Your task to perform on an android device: check google app version Image 0: 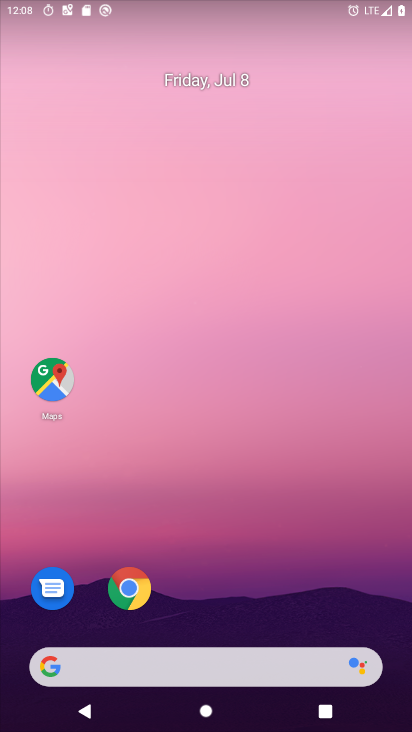
Step 0: drag from (151, 662) to (267, 74)
Your task to perform on an android device: check google app version Image 1: 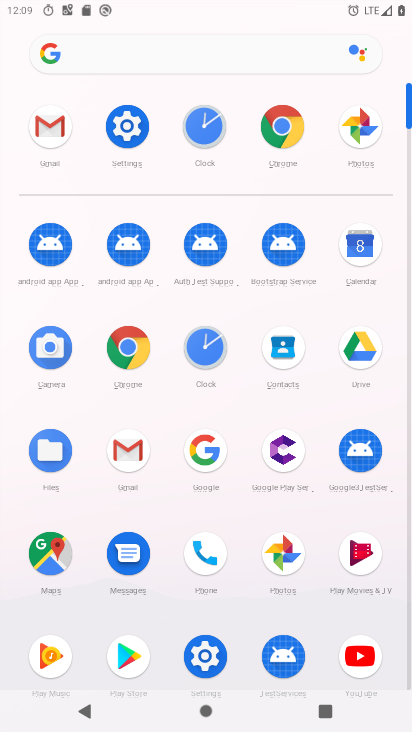
Step 1: drag from (201, 452) to (223, 375)
Your task to perform on an android device: check google app version Image 2: 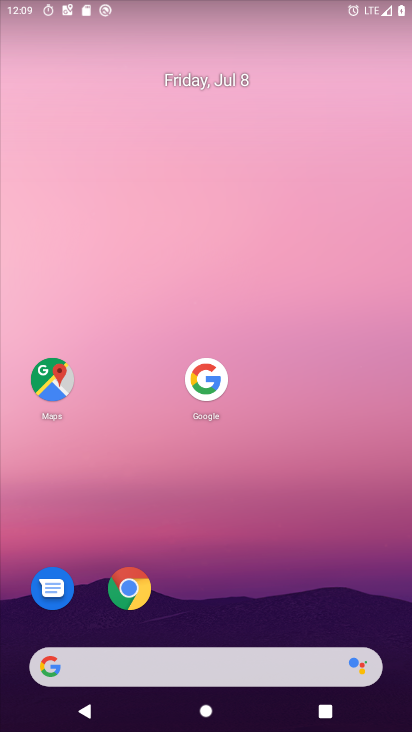
Step 2: click (203, 377)
Your task to perform on an android device: check google app version Image 3: 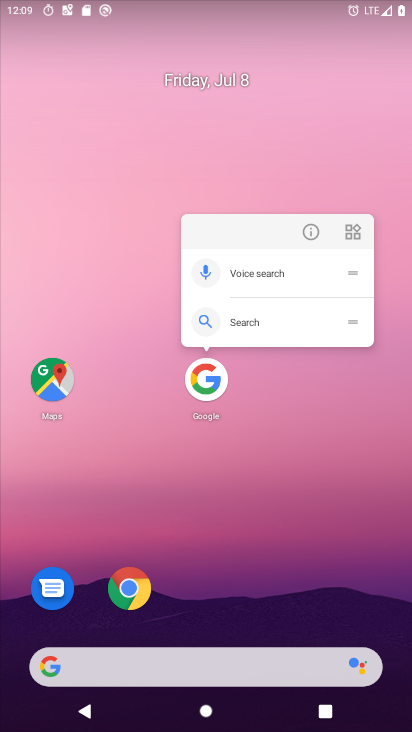
Step 3: click (306, 235)
Your task to perform on an android device: check google app version Image 4: 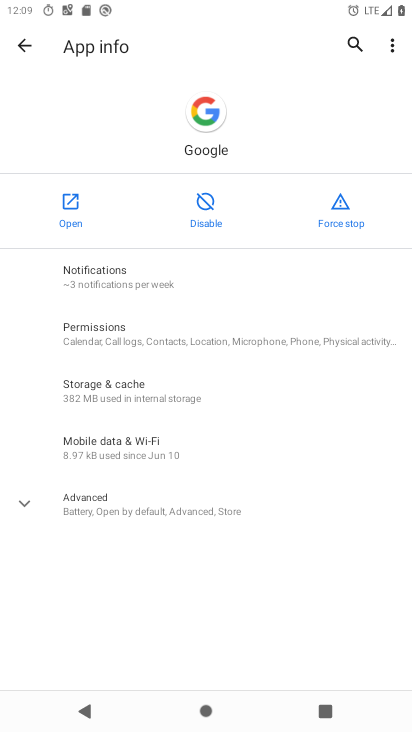
Step 4: click (138, 510)
Your task to perform on an android device: check google app version Image 5: 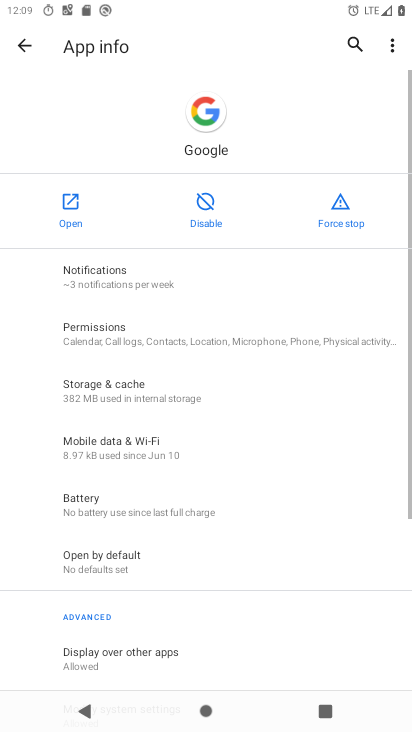
Step 5: task complete